Your task to perform on an android device: Open notification settings Image 0: 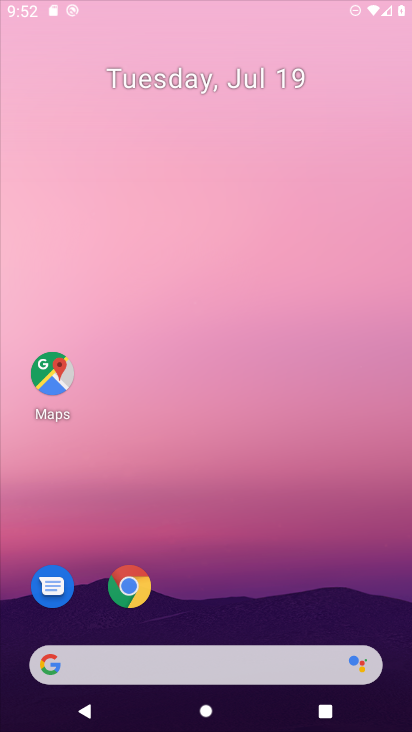
Step 0: click (228, 355)
Your task to perform on an android device: Open notification settings Image 1: 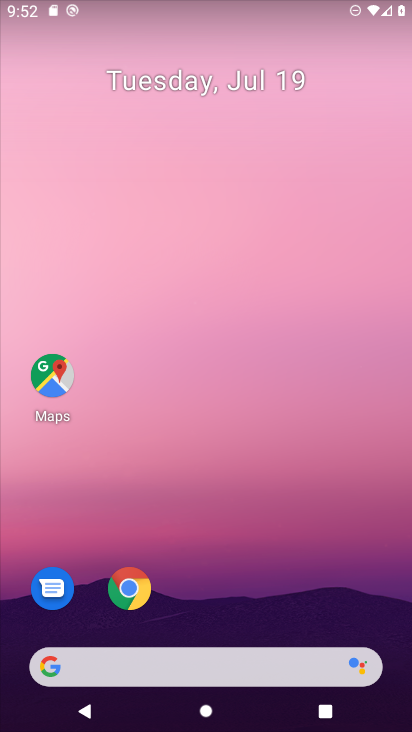
Step 1: drag from (273, 631) to (273, 251)
Your task to perform on an android device: Open notification settings Image 2: 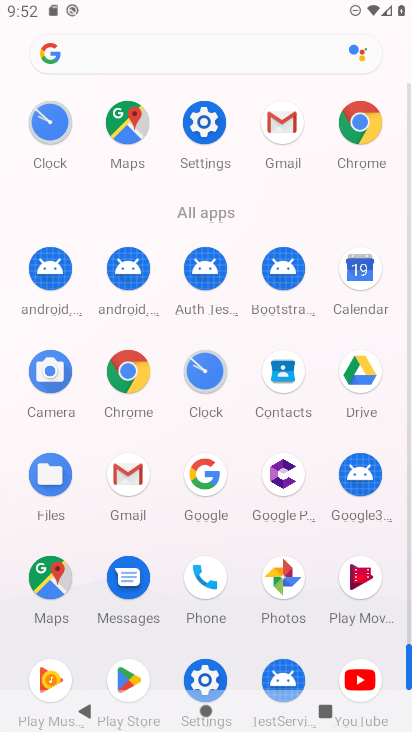
Step 2: click (200, 128)
Your task to perform on an android device: Open notification settings Image 3: 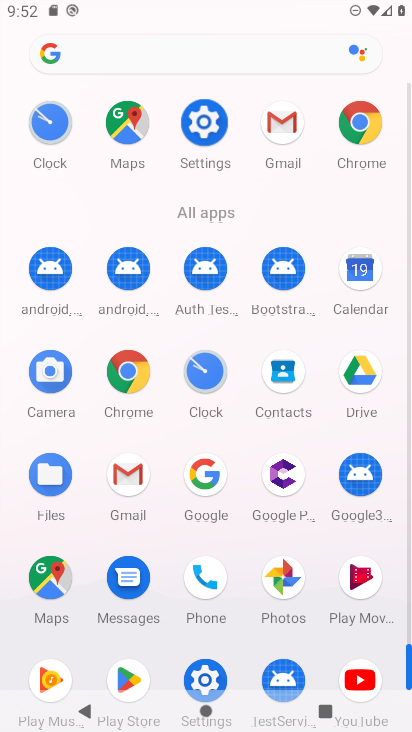
Step 3: click (202, 130)
Your task to perform on an android device: Open notification settings Image 4: 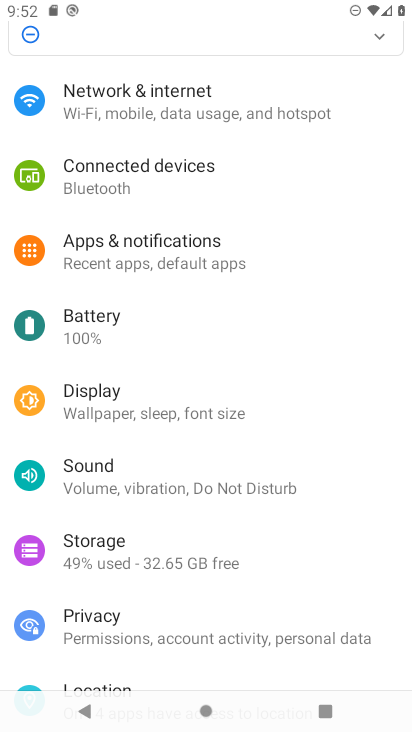
Step 4: drag from (128, 555) to (143, 247)
Your task to perform on an android device: Open notification settings Image 5: 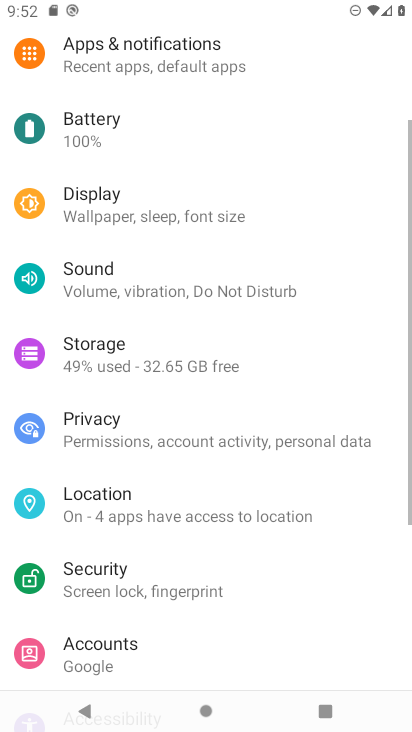
Step 5: drag from (163, 519) to (198, 294)
Your task to perform on an android device: Open notification settings Image 6: 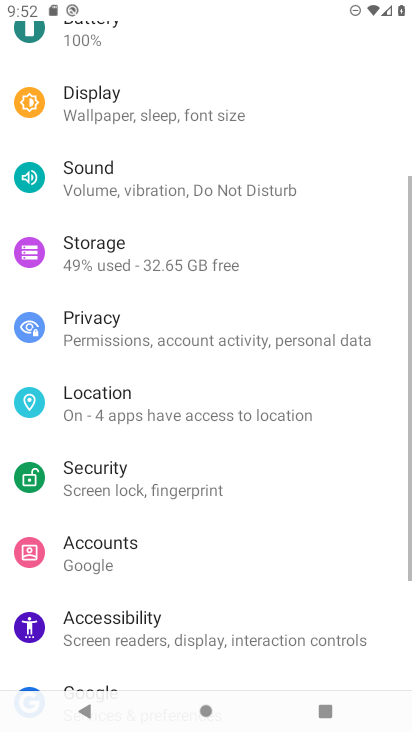
Step 6: drag from (170, 601) to (195, 395)
Your task to perform on an android device: Open notification settings Image 7: 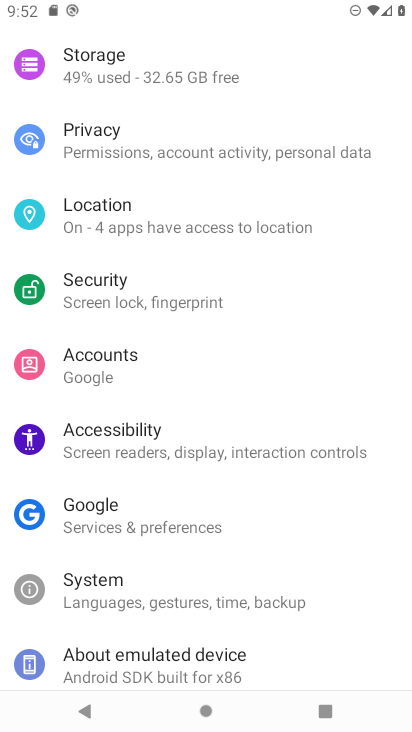
Step 7: drag from (167, 214) to (208, 499)
Your task to perform on an android device: Open notification settings Image 8: 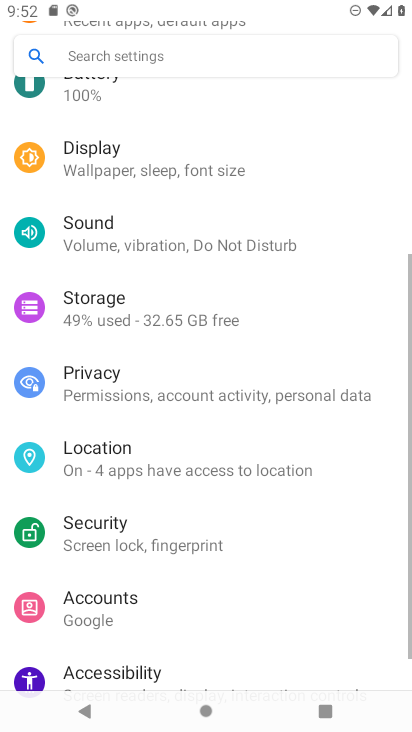
Step 8: drag from (176, 181) to (223, 422)
Your task to perform on an android device: Open notification settings Image 9: 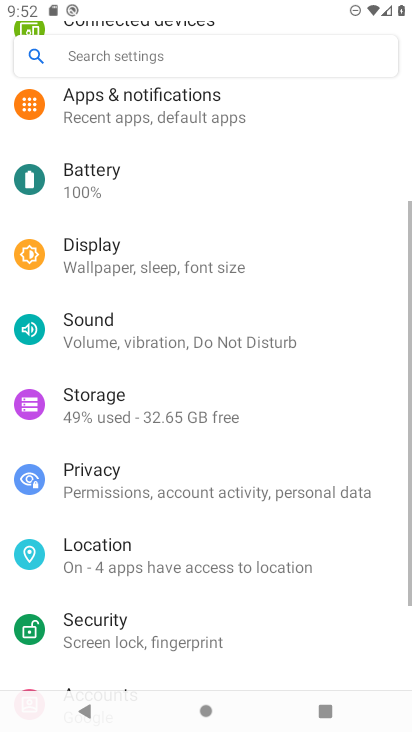
Step 9: drag from (192, 207) to (205, 433)
Your task to perform on an android device: Open notification settings Image 10: 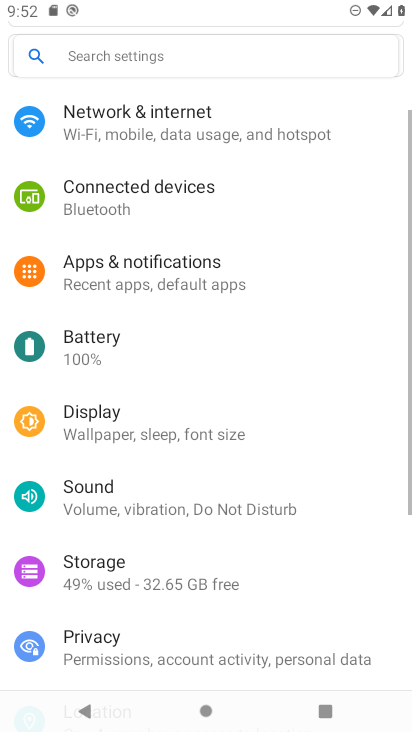
Step 10: drag from (155, 141) to (198, 342)
Your task to perform on an android device: Open notification settings Image 11: 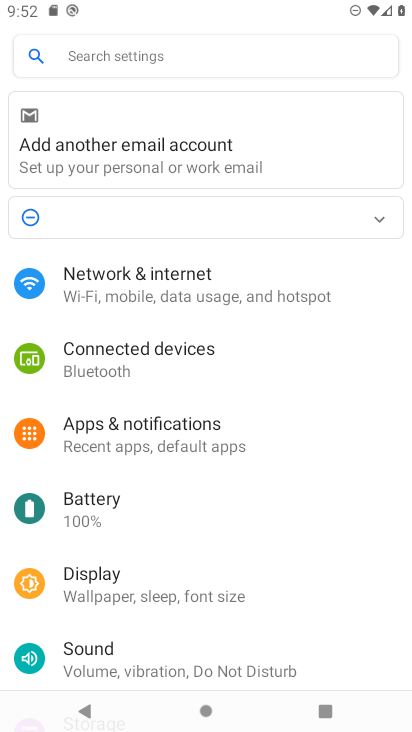
Step 11: click (151, 436)
Your task to perform on an android device: Open notification settings Image 12: 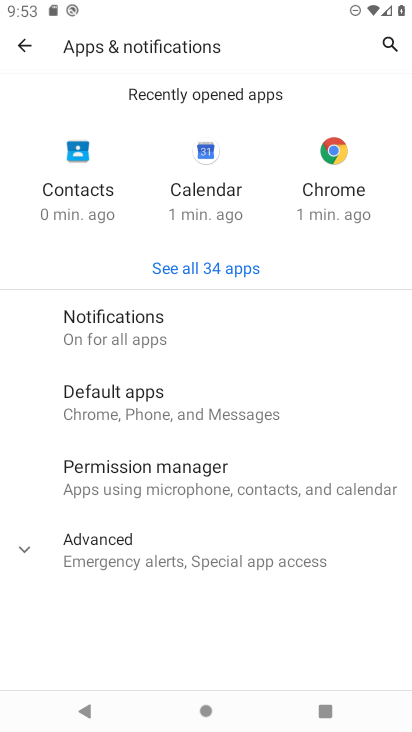
Step 12: click (108, 330)
Your task to perform on an android device: Open notification settings Image 13: 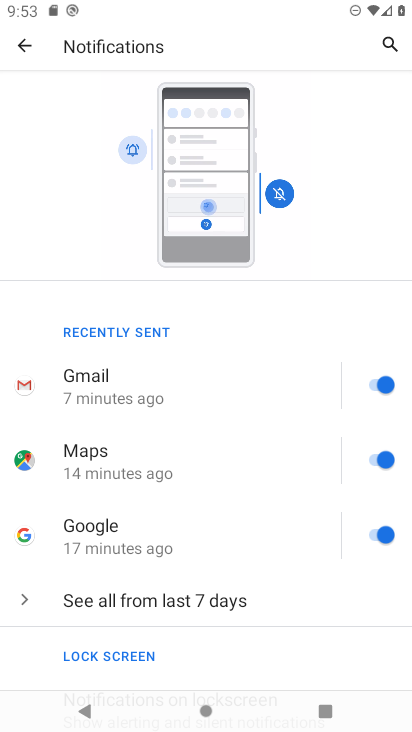
Step 13: task complete